Your task to perform on an android device: Open accessibility settings Image 0: 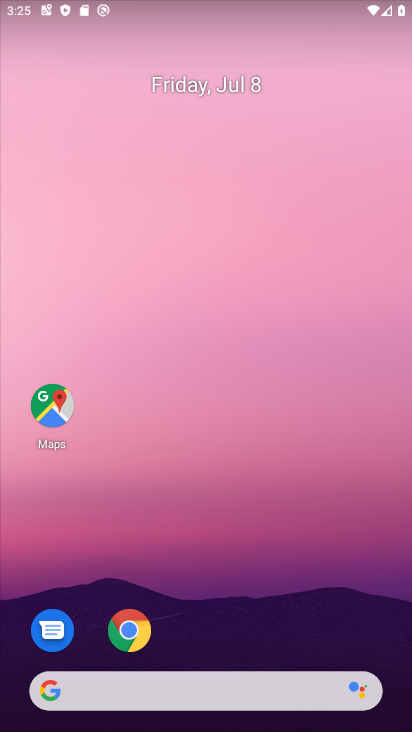
Step 0: drag from (303, 645) to (220, 20)
Your task to perform on an android device: Open accessibility settings Image 1: 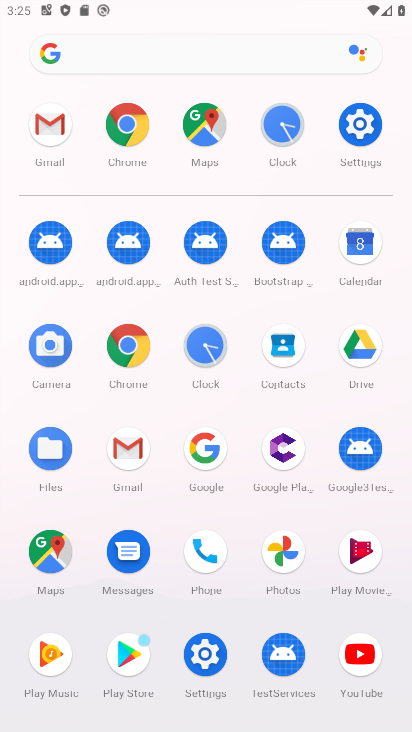
Step 1: click (374, 140)
Your task to perform on an android device: Open accessibility settings Image 2: 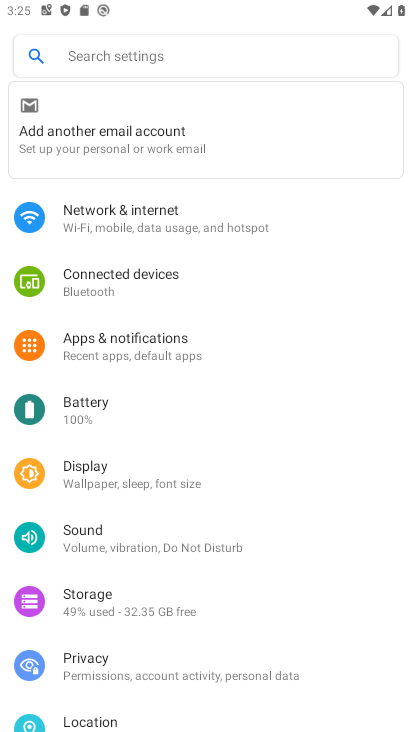
Step 2: drag from (172, 624) to (237, 276)
Your task to perform on an android device: Open accessibility settings Image 3: 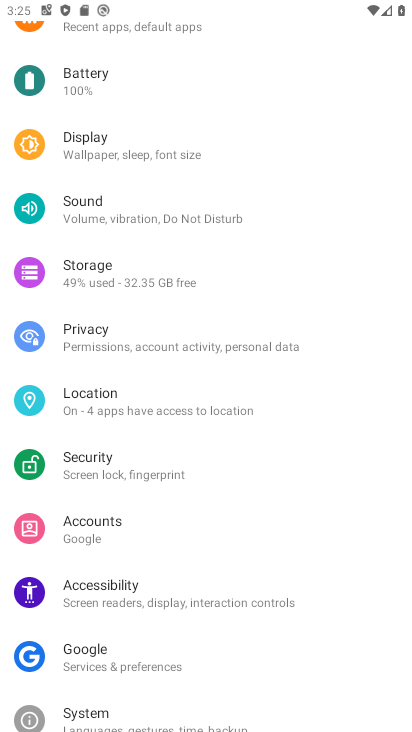
Step 3: click (141, 605)
Your task to perform on an android device: Open accessibility settings Image 4: 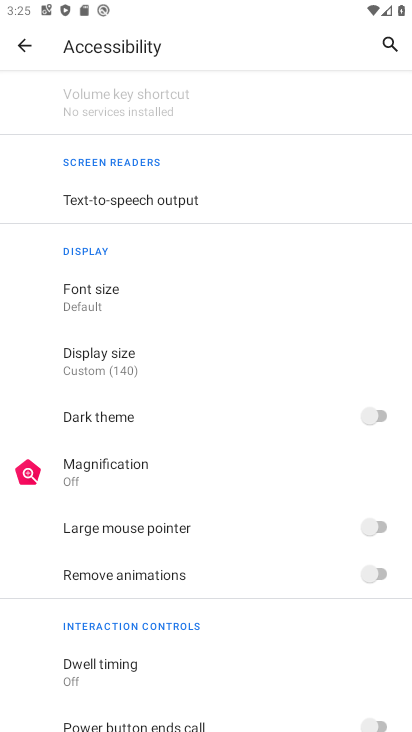
Step 4: task complete